Your task to perform on an android device: change the clock display to show seconds Image 0: 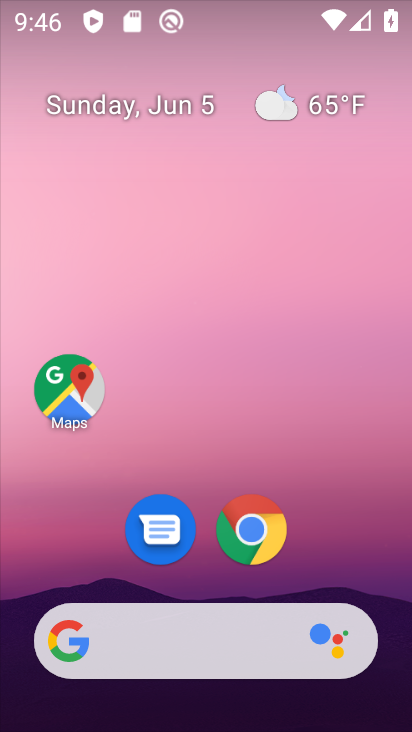
Step 0: drag from (292, 711) to (307, 0)
Your task to perform on an android device: change the clock display to show seconds Image 1: 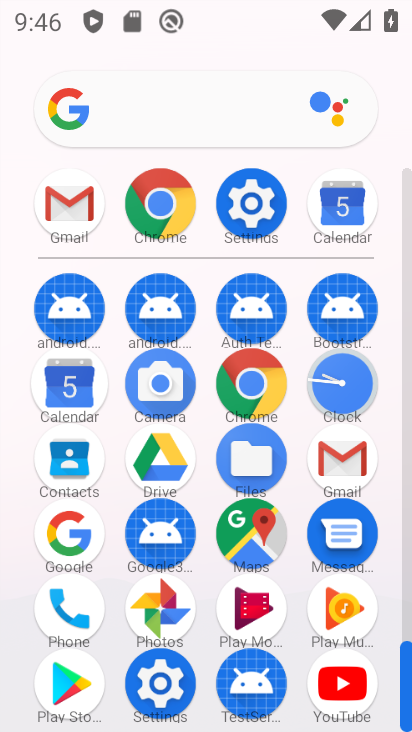
Step 1: click (333, 385)
Your task to perform on an android device: change the clock display to show seconds Image 2: 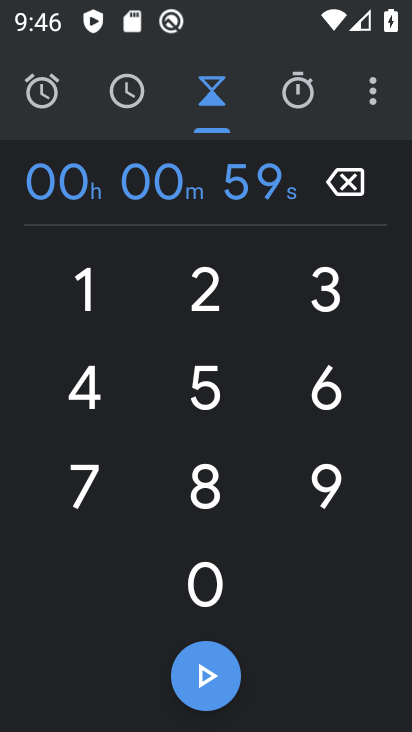
Step 2: click (381, 96)
Your task to perform on an android device: change the clock display to show seconds Image 3: 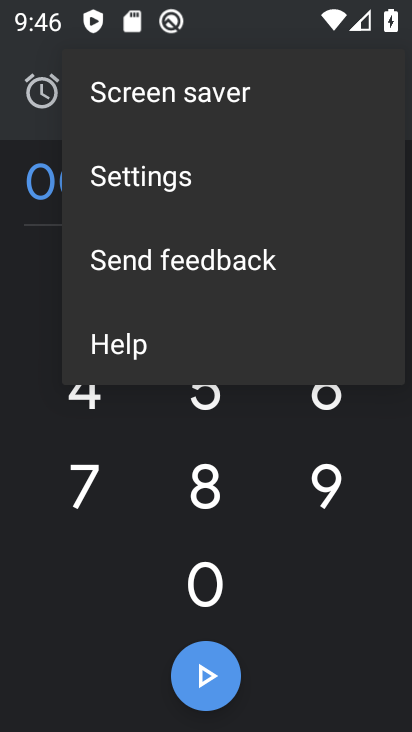
Step 3: click (250, 173)
Your task to perform on an android device: change the clock display to show seconds Image 4: 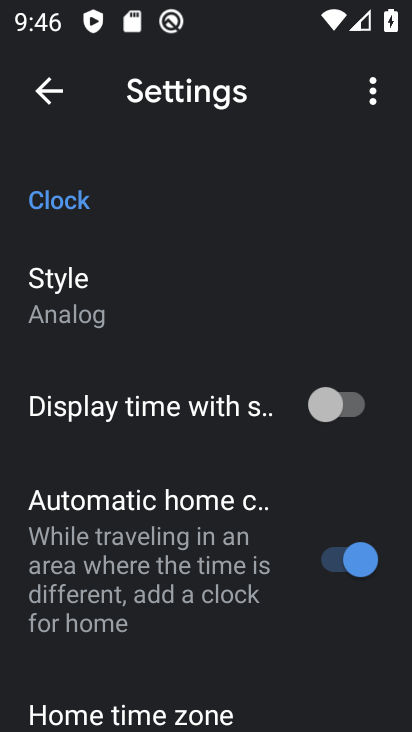
Step 4: click (342, 400)
Your task to perform on an android device: change the clock display to show seconds Image 5: 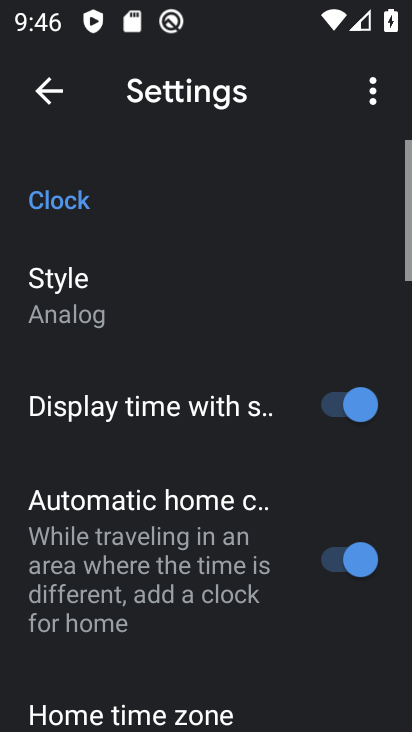
Step 5: task complete